Your task to perform on an android device: What is the news today? Image 0: 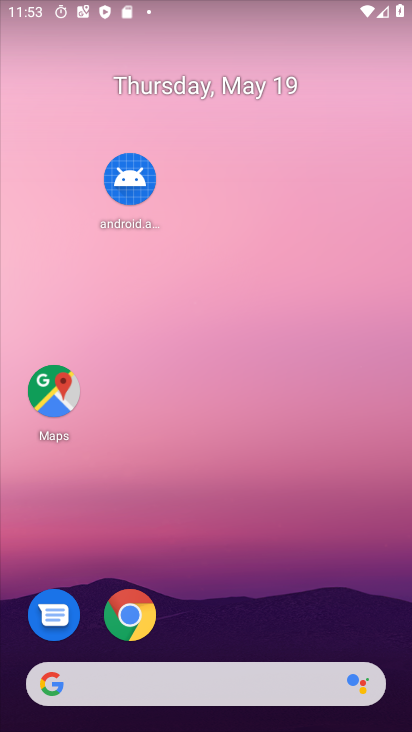
Step 0: drag from (28, 304) to (410, 229)
Your task to perform on an android device: What is the news today? Image 1: 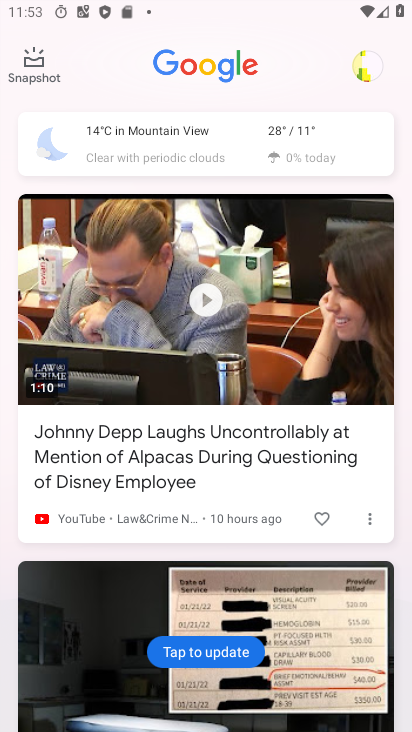
Step 1: task complete